Your task to perform on an android device: Open battery settings Image 0: 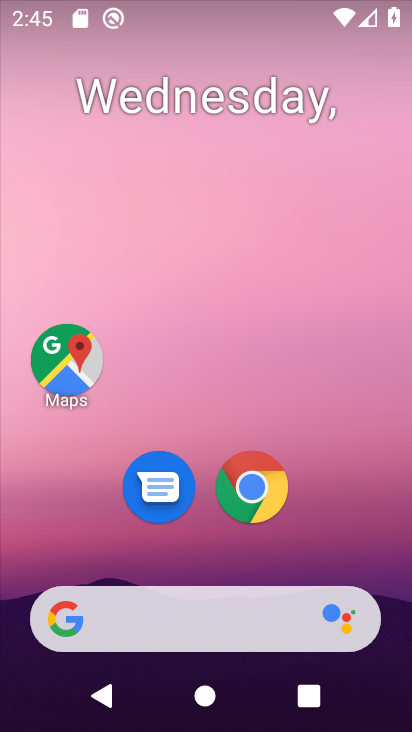
Step 0: drag from (273, 671) to (227, 43)
Your task to perform on an android device: Open battery settings Image 1: 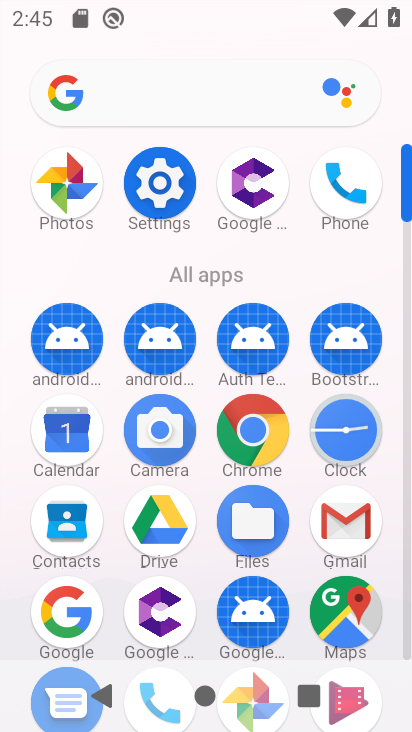
Step 1: click (158, 188)
Your task to perform on an android device: Open battery settings Image 2: 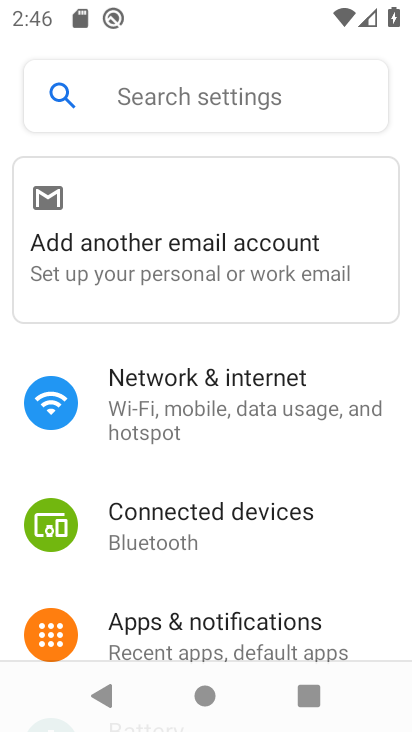
Step 2: drag from (269, 522) to (286, 2)
Your task to perform on an android device: Open battery settings Image 3: 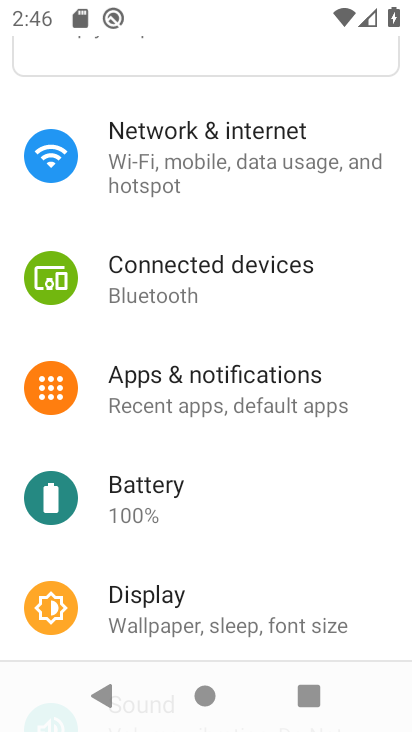
Step 3: click (215, 508)
Your task to perform on an android device: Open battery settings Image 4: 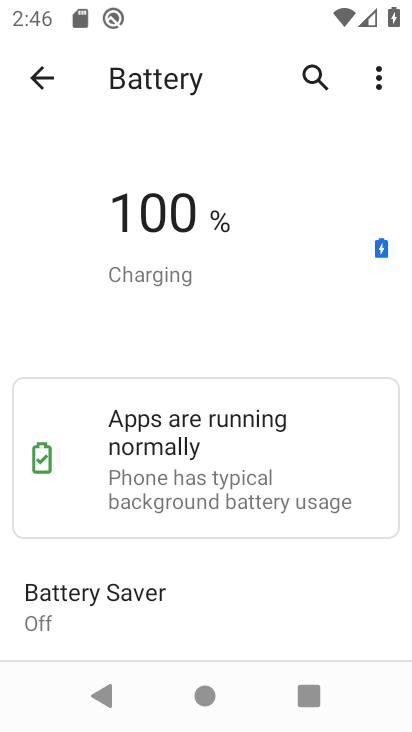
Step 4: task complete